Your task to perform on an android device: Go to internet settings Image 0: 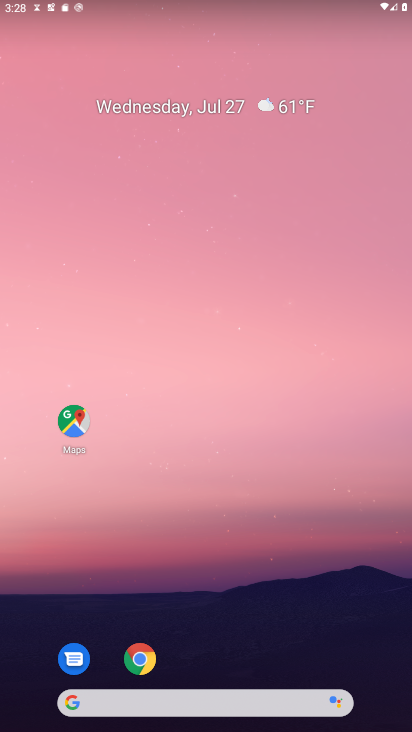
Step 0: drag from (167, 693) to (91, 25)
Your task to perform on an android device: Go to internet settings Image 1: 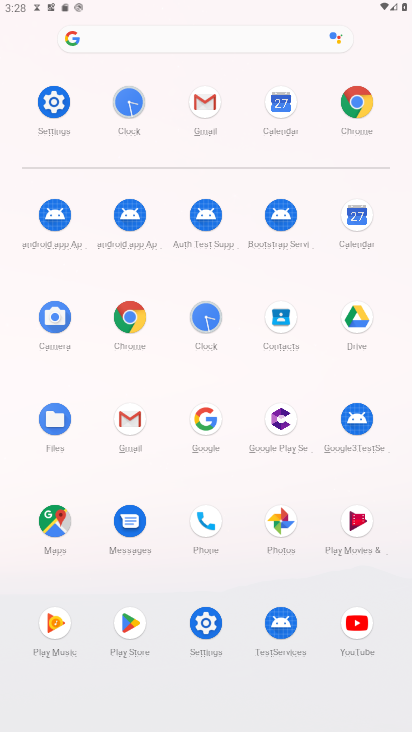
Step 1: click (60, 100)
Your task to perform on an android device: Go to internet settings Image 2: 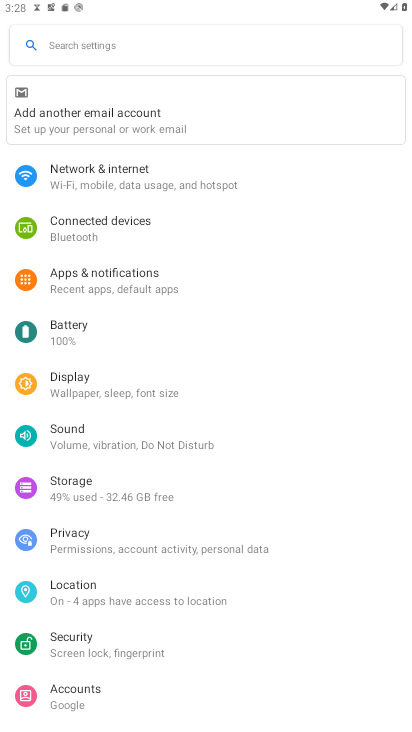
Step 2: click (116, 190)
Your task to perform on an android device: Go to internet settings Image 3: 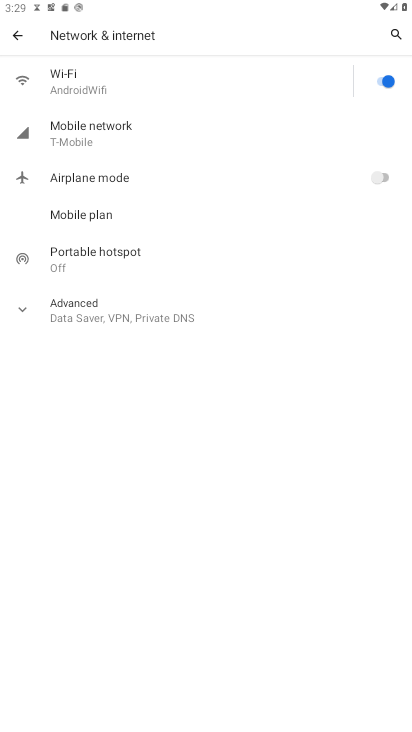
Step 3: task complete